Your task to perform on an android device: Show me productivity apps on the Play Store Image 0: 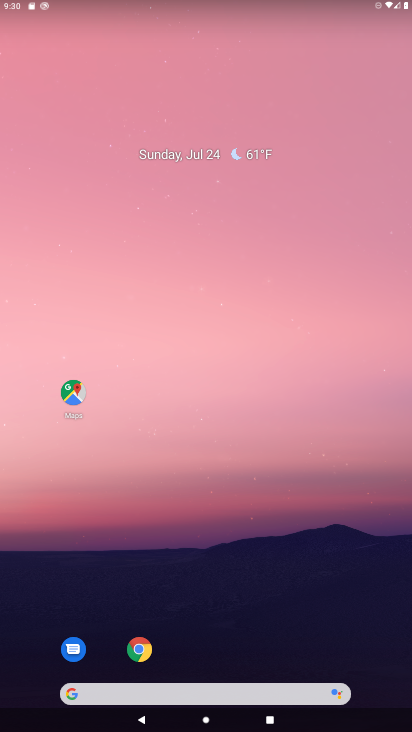
Step 0: drag from (348, 611) to (271, 17)
Your task to perform on an android device: Show me productivity apps on the Play Store Image 1: 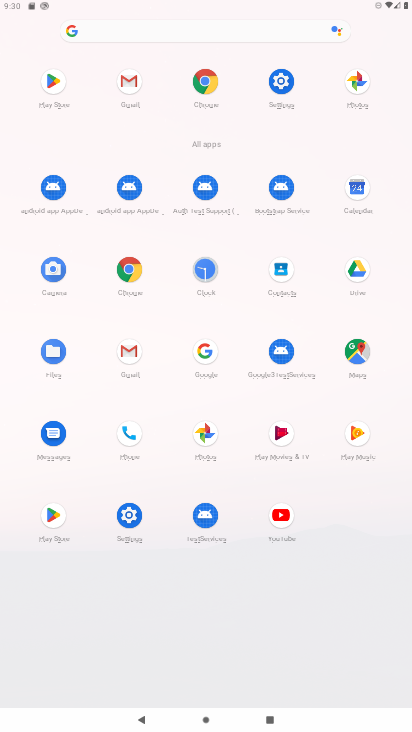
Step 1: click (50, 513)
Your task to perform on an android device: Show me productivity apps on the Play Store Image 2: 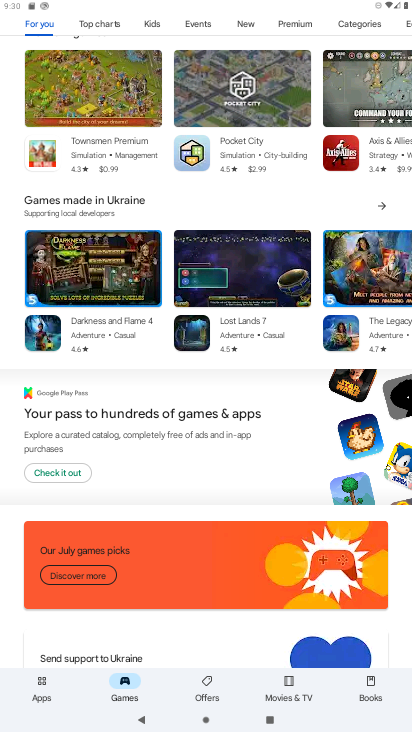
Step 2: click (48, 682)
Your task to perform on an android device: Show me productivity apps on the Play Store Image 3: 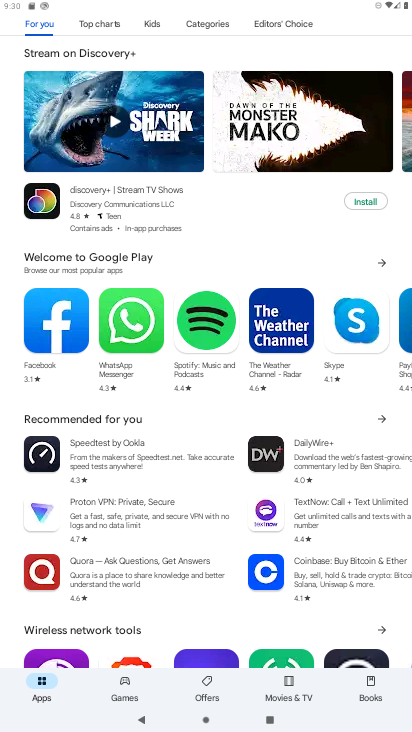
Step 3: task complete